Your task to perform on an android device: refresh tabs in the chrome app Image 0: 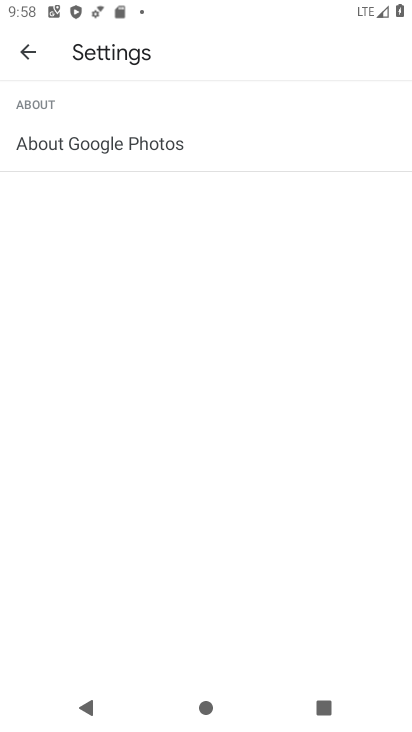
Step 0: press back button
Your task to perform on an android device: refresh tabs in the chrome app Image 1: 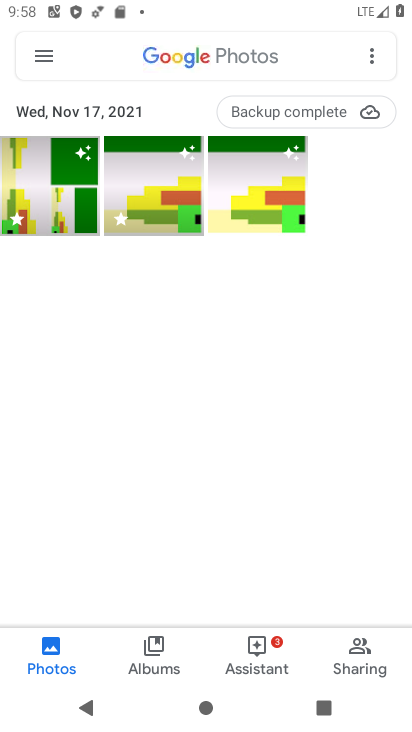
Step 1: press back button
Your task to perform on an android device: refresh tabs in the chrome app Image 2: 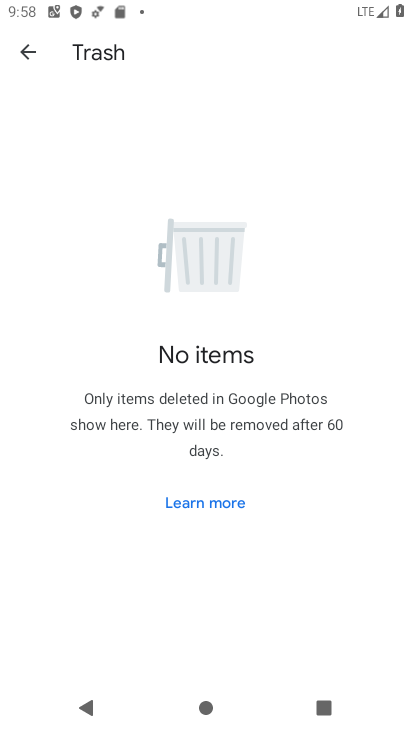
Step 2: press back button
Your task to perform on an android device: refresh tabs in the chrome app Image 3: 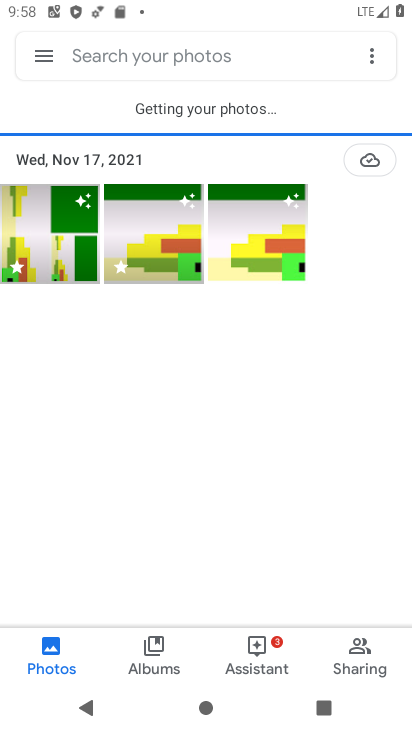
Step 3: press back button
Your task to perform on an android device: refresh tabs in the chrome app Image 4: 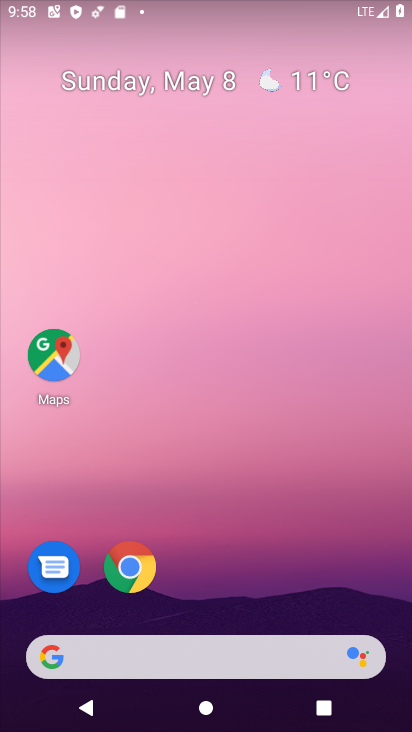
Step 4: click (121, 567)
Your task to perform on an android device: refresh tabs in the chrome app Image 5: 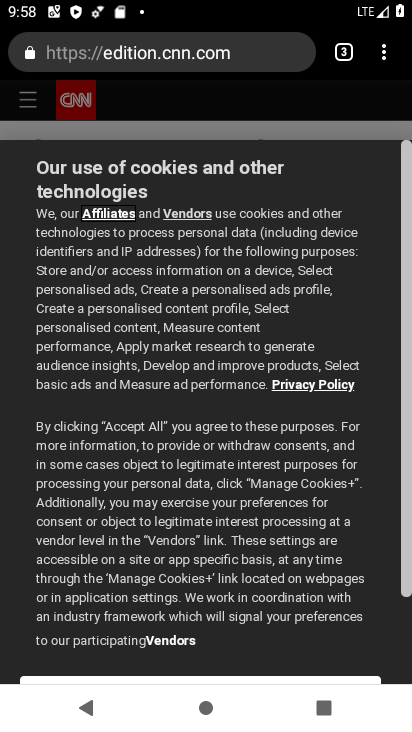
Step 5: click (393, 54)
Your task to perform on an android device: refresh tabs in the chrome app Image 6: 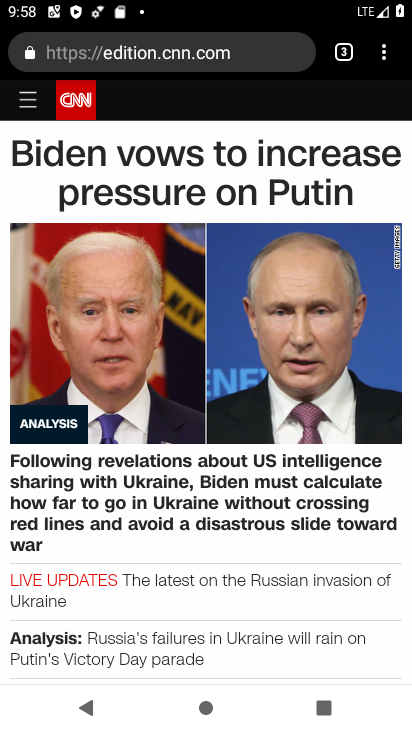
Step 6: click (385, 41)
Your task to perform on an android device: refresh tabs in the chrome app Image 7: 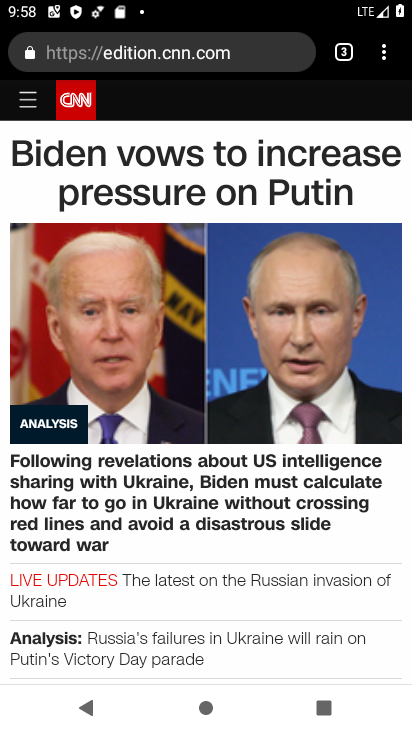
Step 7: task complete